Your task to perform on an android device: move an email to a new category in the gmail app Image 0: 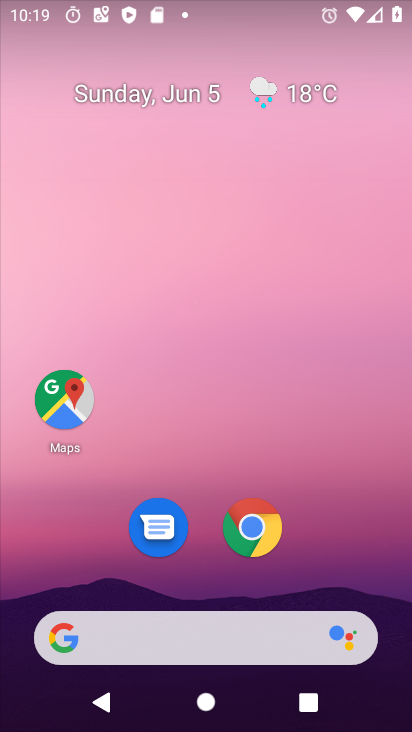
Step 0: drag from (299, 376) to (368, 18)
Your task to perform on an android device: move an email to a new category in the gmail app Image 1: 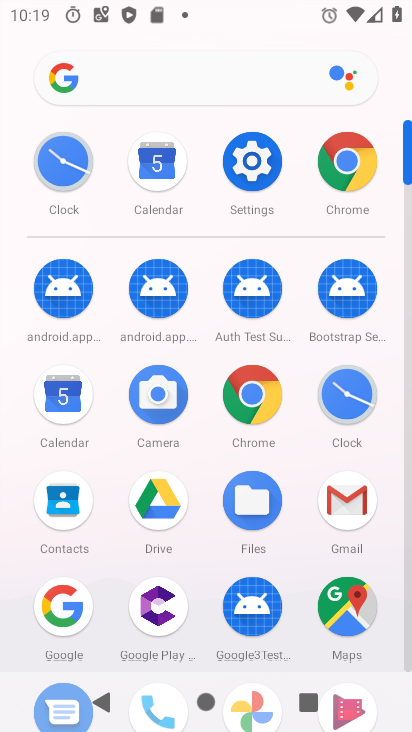
Step 1: click (342, 519)
Your task to perform on an android device: move an email to a new category in the gmail app Image 2: 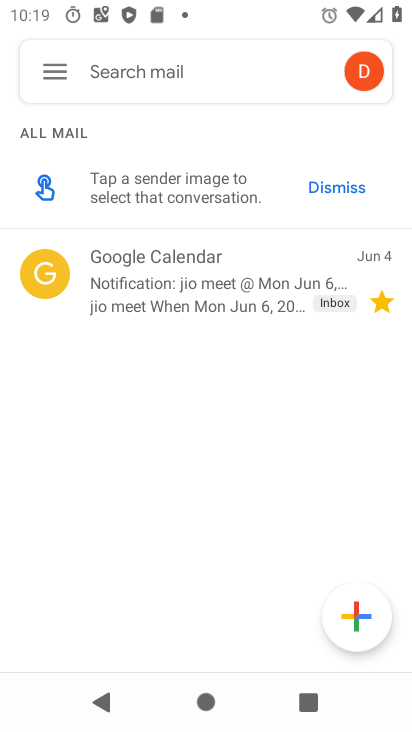
Step 2: click (238, 275)
Your task to perform on an android device: move an email to a new category in the gmail app Image 3: 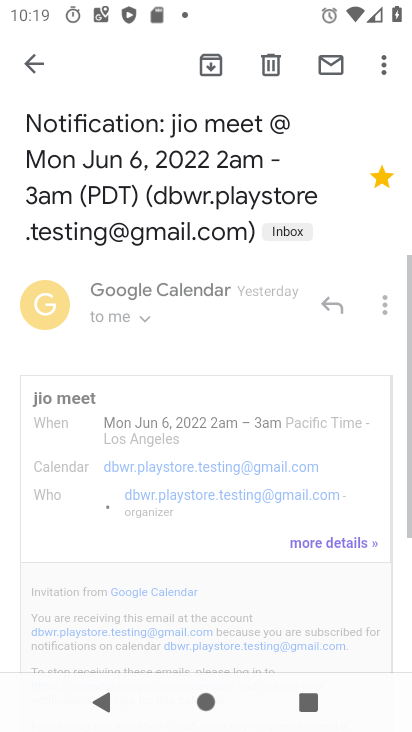
Step 3: click (375, 180)
Your task to perform on an android device: move an email to a new category in the gmail app Image 4: 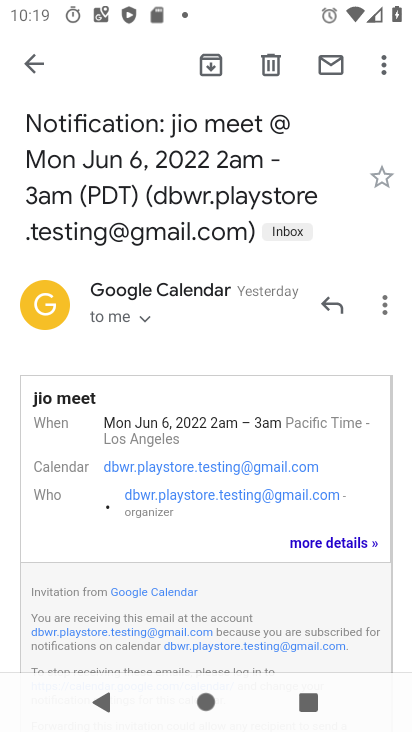
Step 4: task complete